Your task to perform on an android device: Go to ESPN.com Image 0: 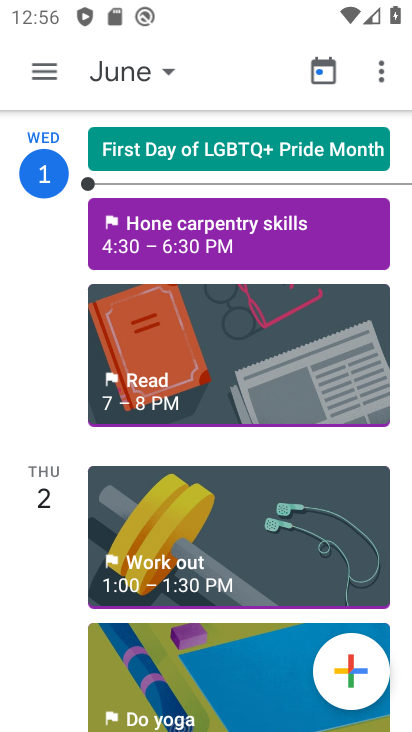
Step 0: press home button
Your task to perform on an android device: Go to ESPN.com Image 1: 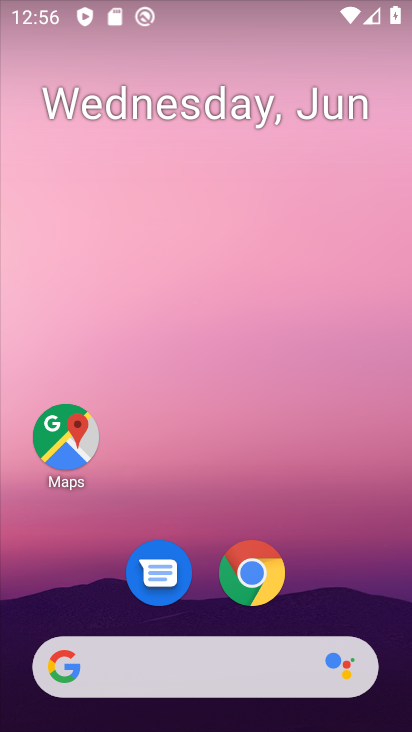
Step 1: drag from (381, 618) to (382, 141)
Your task to perform on an android device: Go to ESPN.com Image 2: 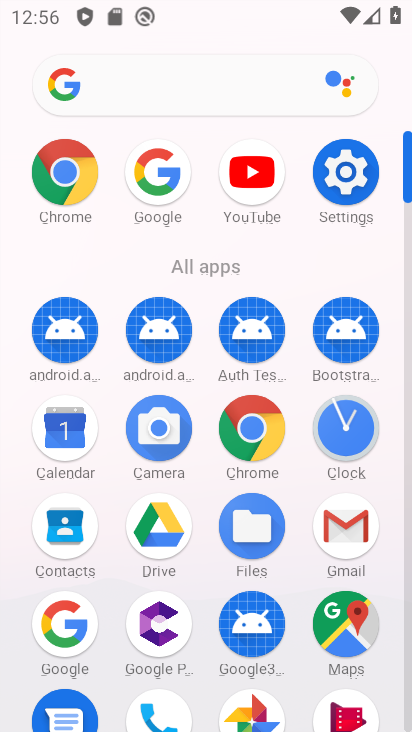
Step 2: click (238, 450)
Your task to perform on an android device: Go to ESPN.com Image 3: 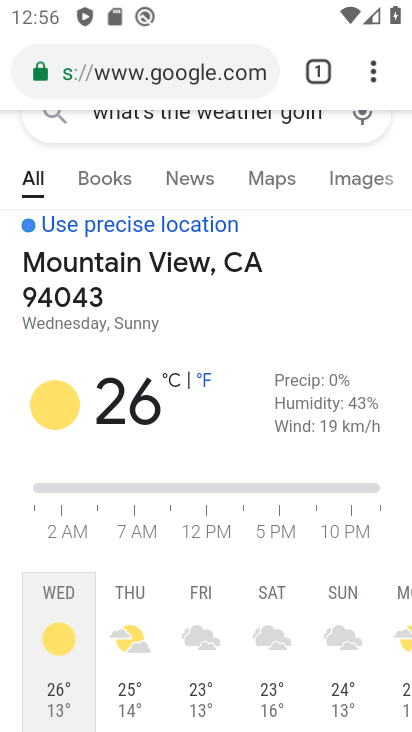
Step 3: click (229, 75)
Your task to perform on an android device: Go to ESPN.com Image 4: 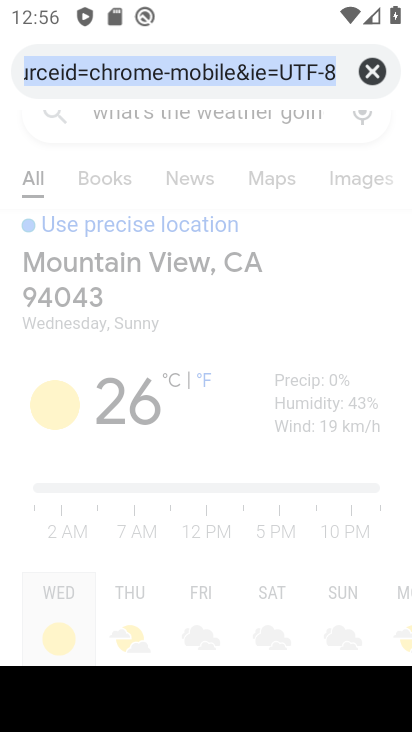
Step 4: click (369, 77)
Your task to perform on an android device: Go to ESPN.com Image 5: 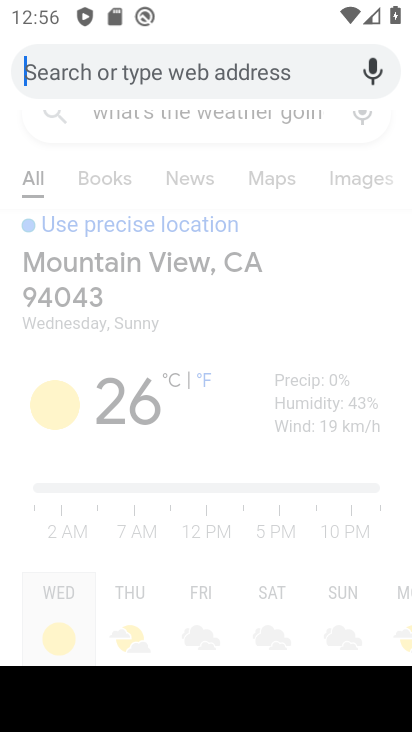
Step 5: click (234, 74)
Your task to perform on an android device: Go to ESPN.com Image 6: 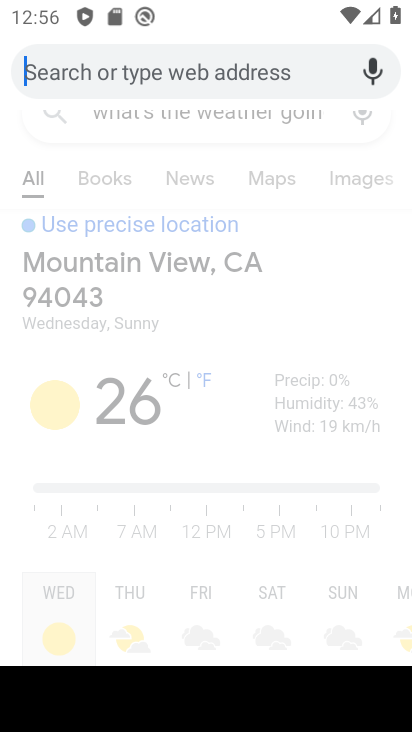
Step 6: type "espn.com"
Your task to perform on an android device: Go to ESPN.com Image 7: 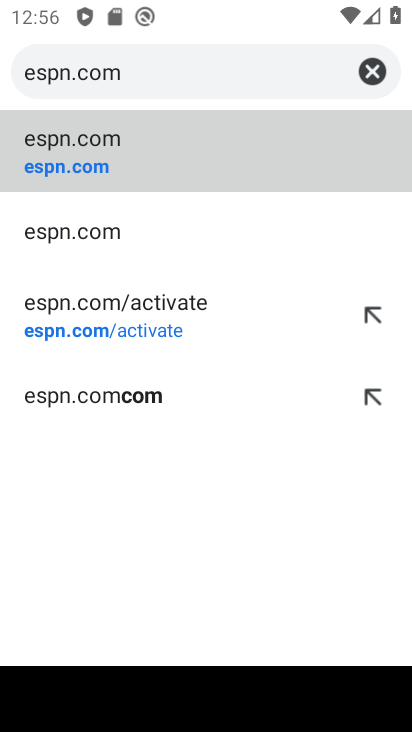
Step 7: click (65, 155)
Your task to perform on an android device: Go to ESPN.com Image 8: 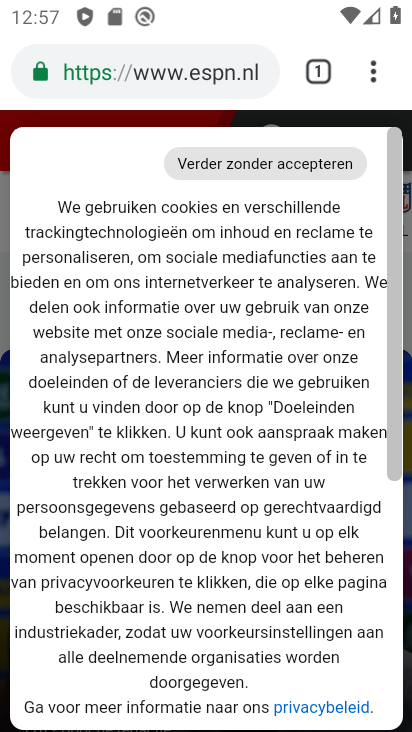
Step 8: task complete